Your task to perform on an android device: Turn off the flashlight Image 0: 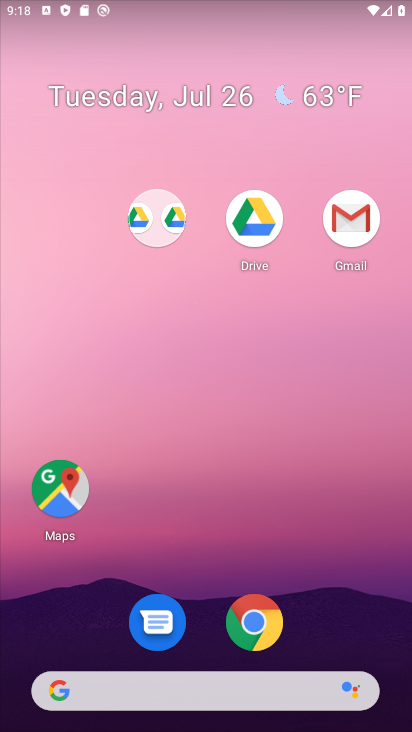
Step 0: drag from (329, 607) to (226, 23)
Your task to perform on an android device: Turn off the flashlight Image 1: 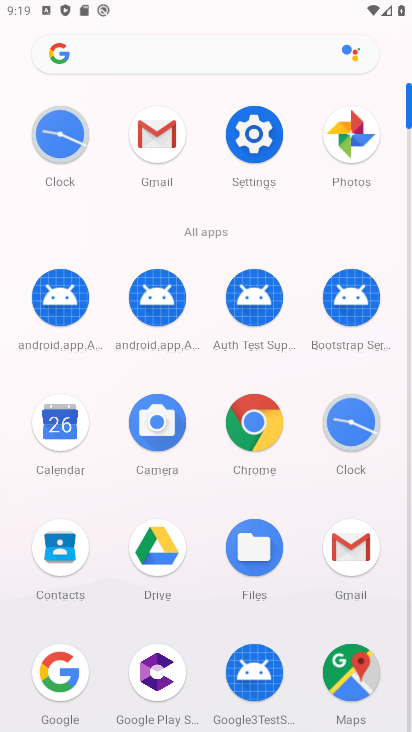
Step 1: click (252, 166)
Your task to perform on an android device: Turn off the flashlight Image 2: 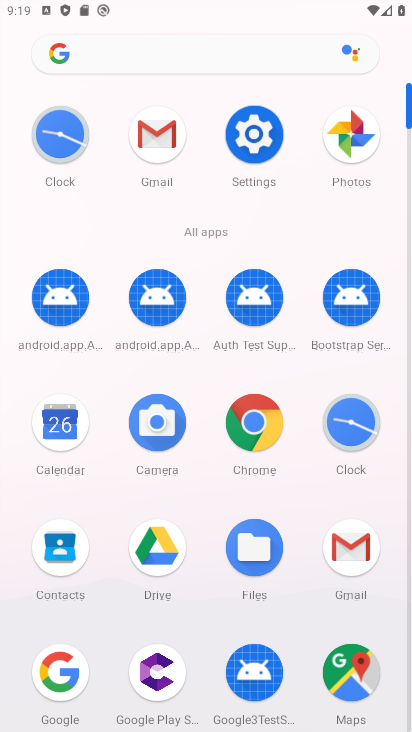
Step 2: click (252, 166)
Your task to perform on an android device: Turn off the flashlight Image 3: 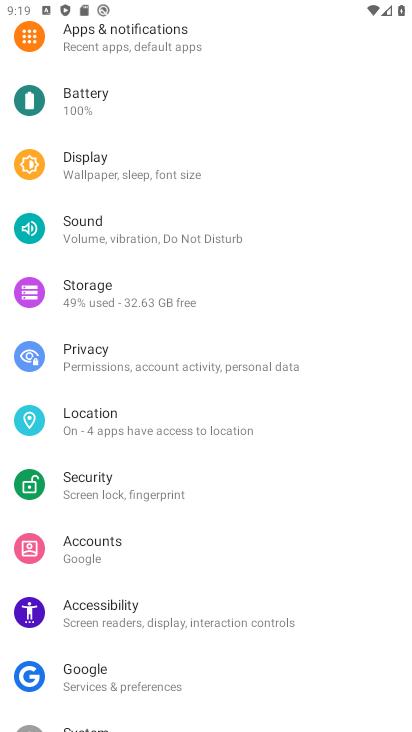
Step 3: task complete